Your task to perform on an android device: Open Maps and search for coffee Image 0: 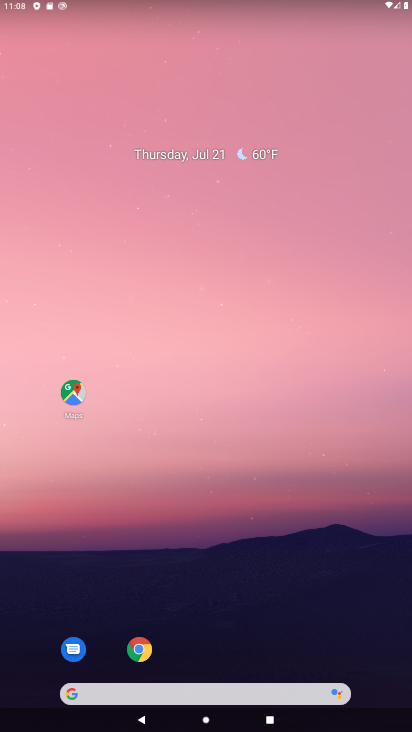
Step 0: click (82, 396)
Your task to perform on an android device: Open Maps and search for coffee Image 1: 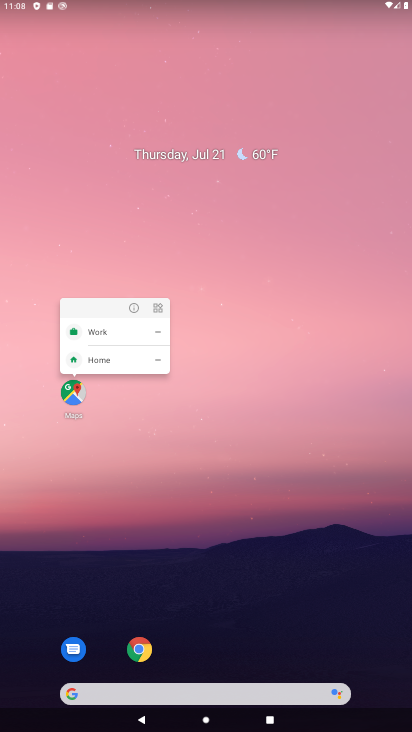
Step 1: click (75, 390)
Your task to perform on an android device: Open Maps and search for coffee Image 2: 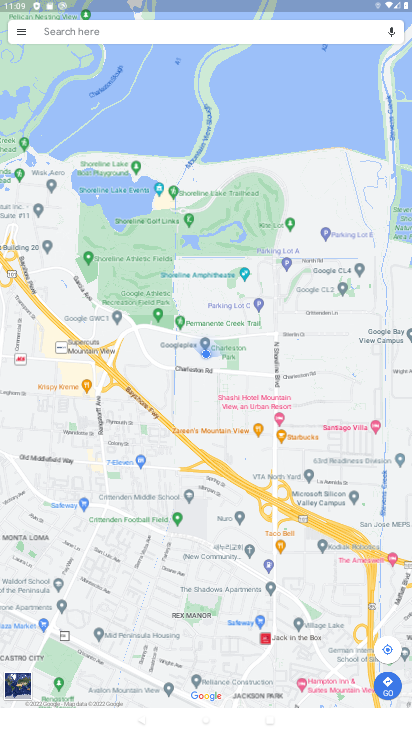
Step 2: click (63, 28)
Your task to perform on an android device: Open Maps and search for coffee Image 3: 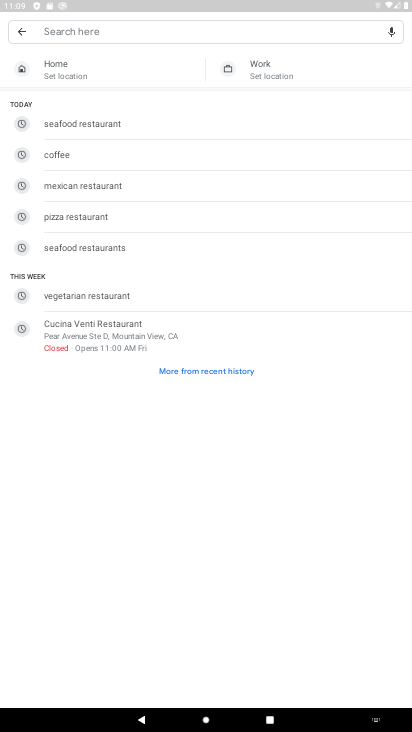
Step 3: click (67, 156)
Your task to perform on an android device: Open Maps and search for coffee Image 4: 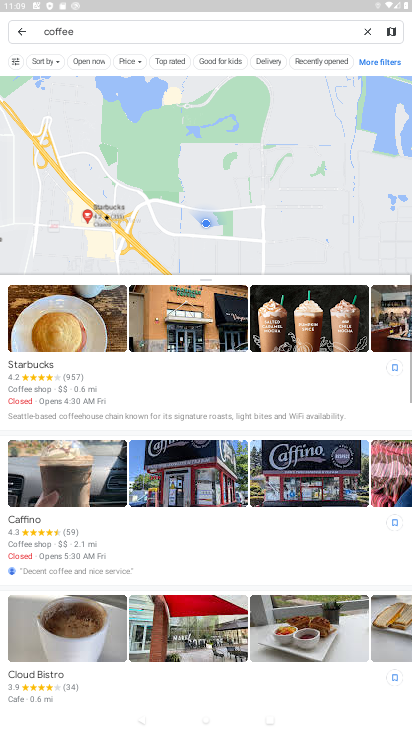
Step 4: task complete